Your task to perform on an android device: turn on the 12-hour format for clock Image 0: 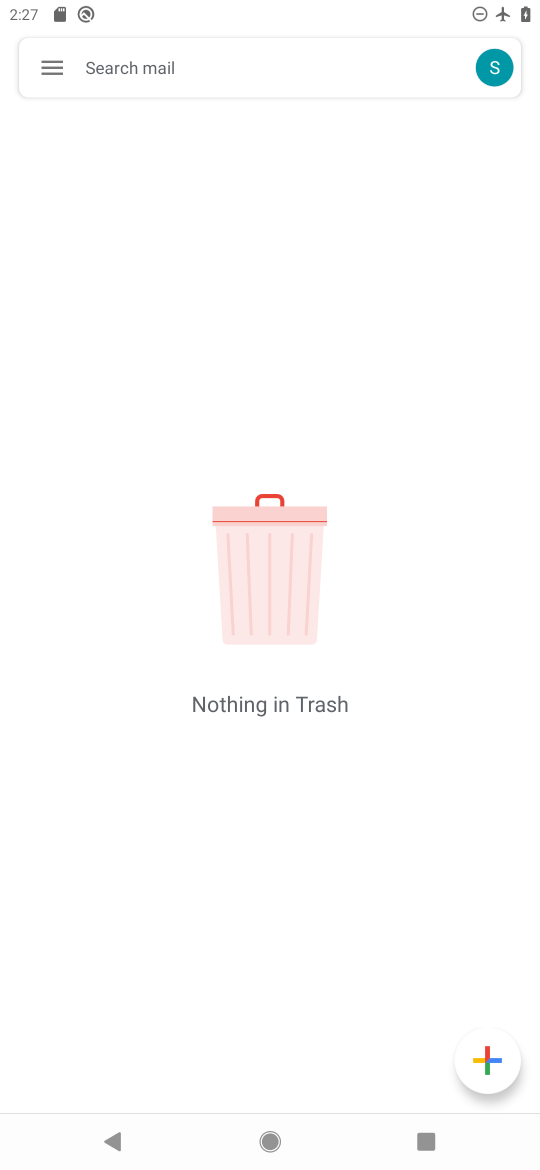
Step 0: press home button
Your task to perform on an android device: turn on the 12-hour format for clock Image 1: 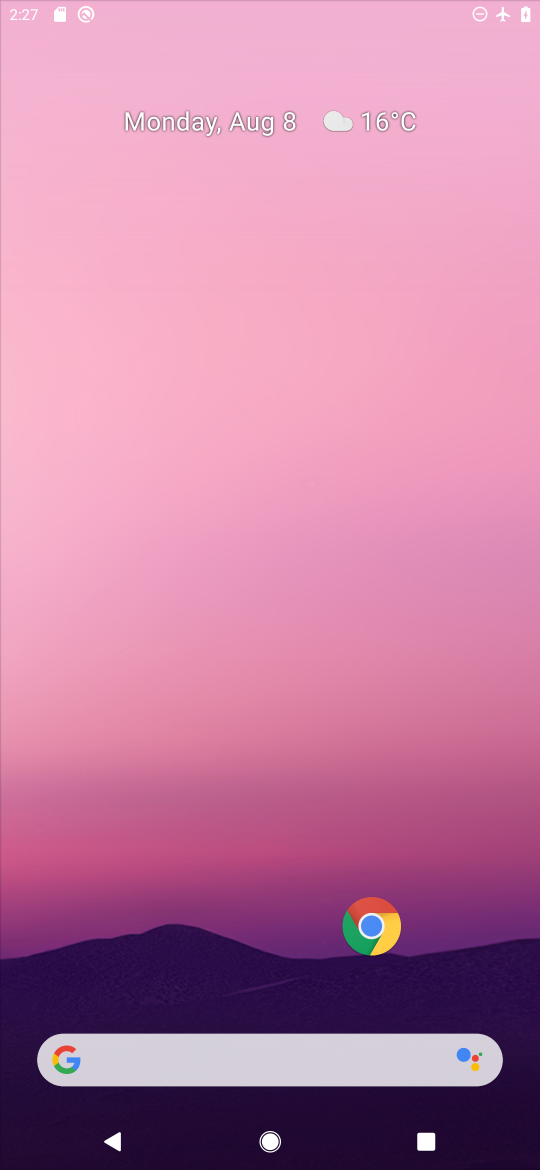
Step 1: drag from (181, 1060) to (312, 73)
Your task to perform on an android device: turn on the 12-hour format for clock Image 2: 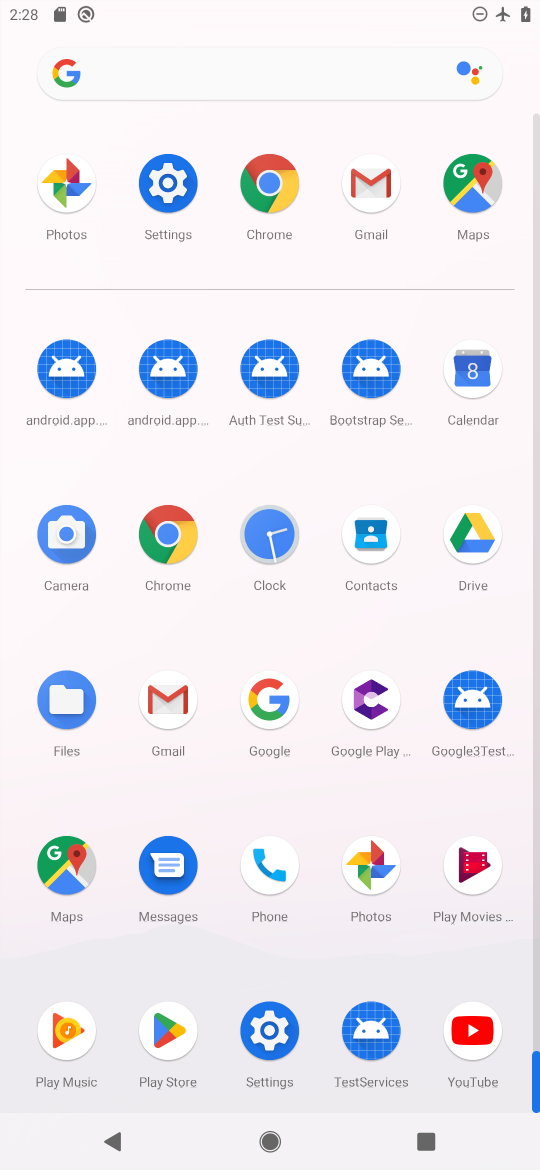
Step 2: click (254, 535)
Your task to perform on an android device: turn on the 12-hour format for clock Image 3: 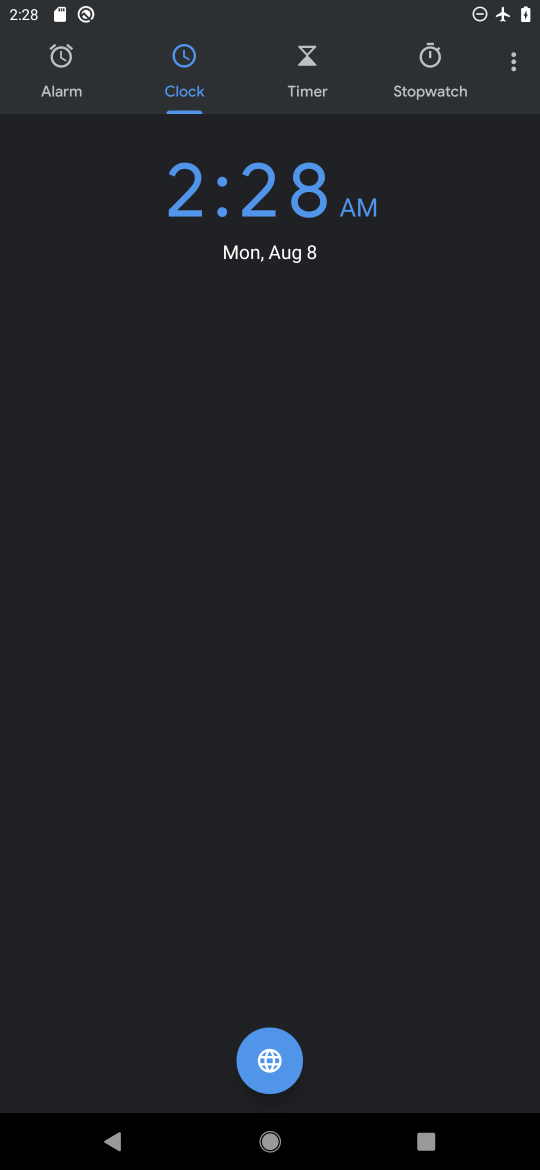
Step 3: click (505, 69)
Your task to perform on an android device: turn on the 12-hour format for clock Image 4: 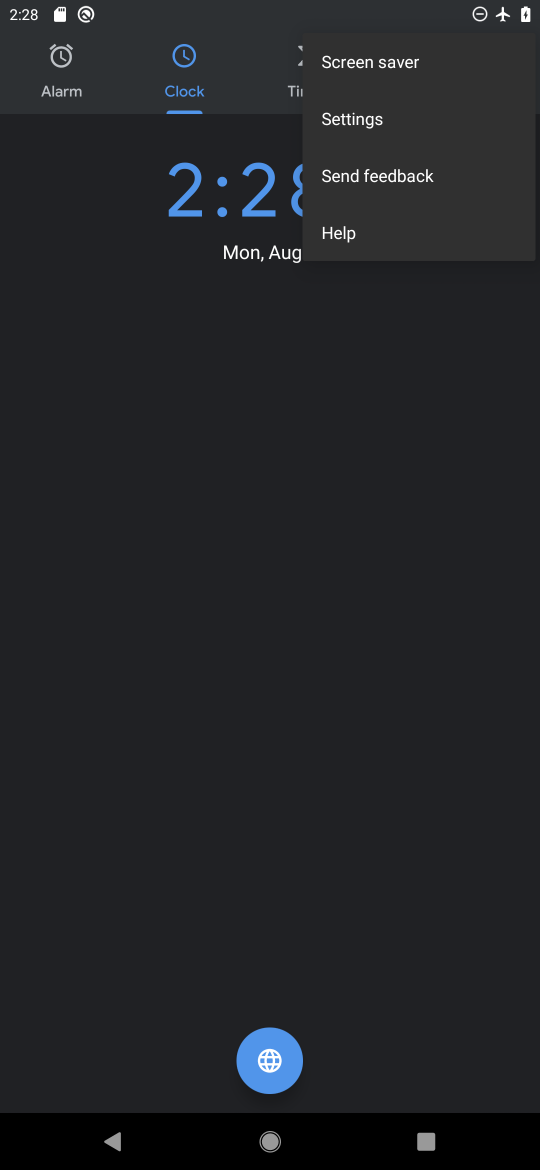
Step 4: click (392, 129)
Your task to perform on an android device: turn on the 12-hour format for clock Image 5: 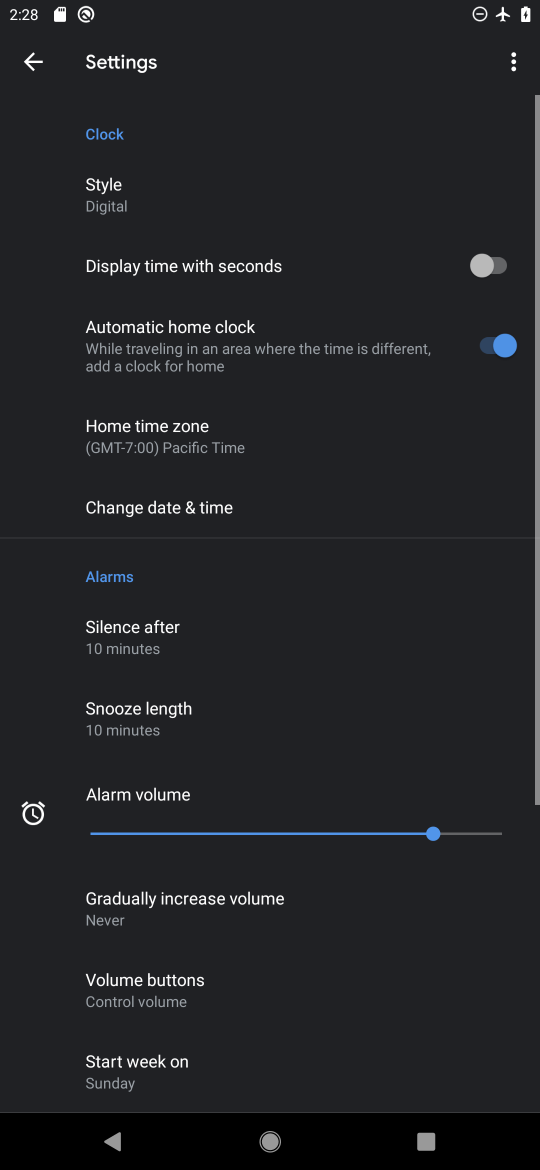
Step 5: click (177, 498)
Your task to perform on an android device: turn on the 12-hour format for clock Image 6: 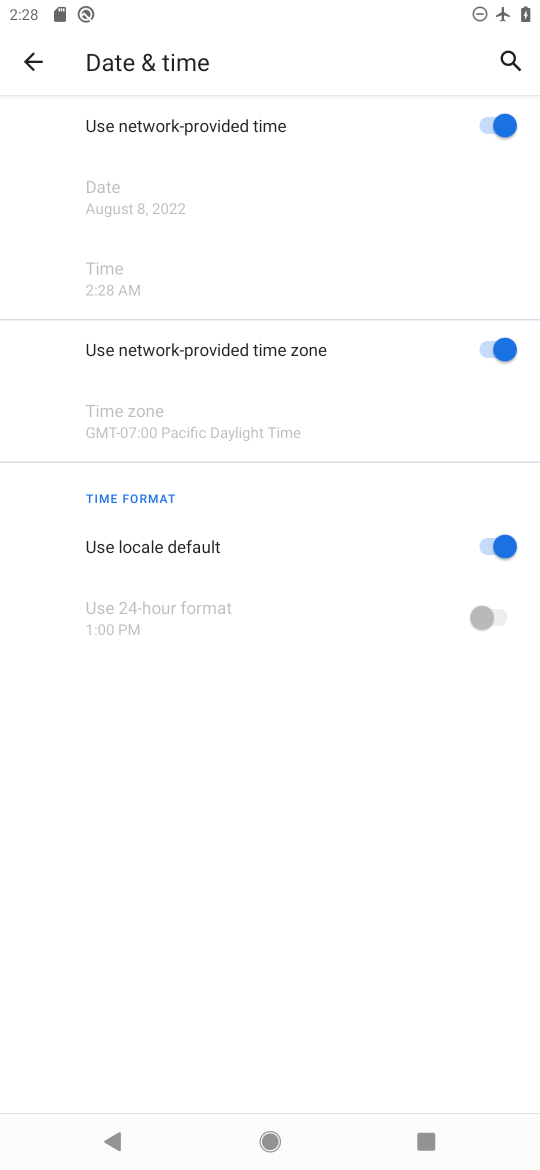
Step 6: click (514, 546)
Your task to perform on an android device: turn on the 12-hour format for clock Image 7: 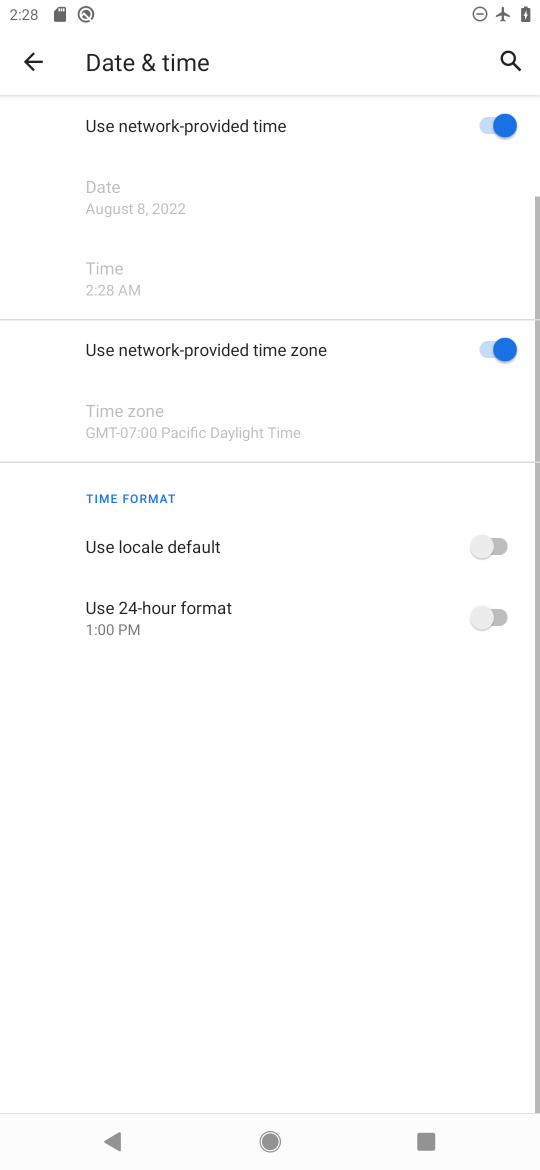
Step 7: click (477, 620)
Your task to perform on an android device: turn on the 12-hour format for clock Image 8: 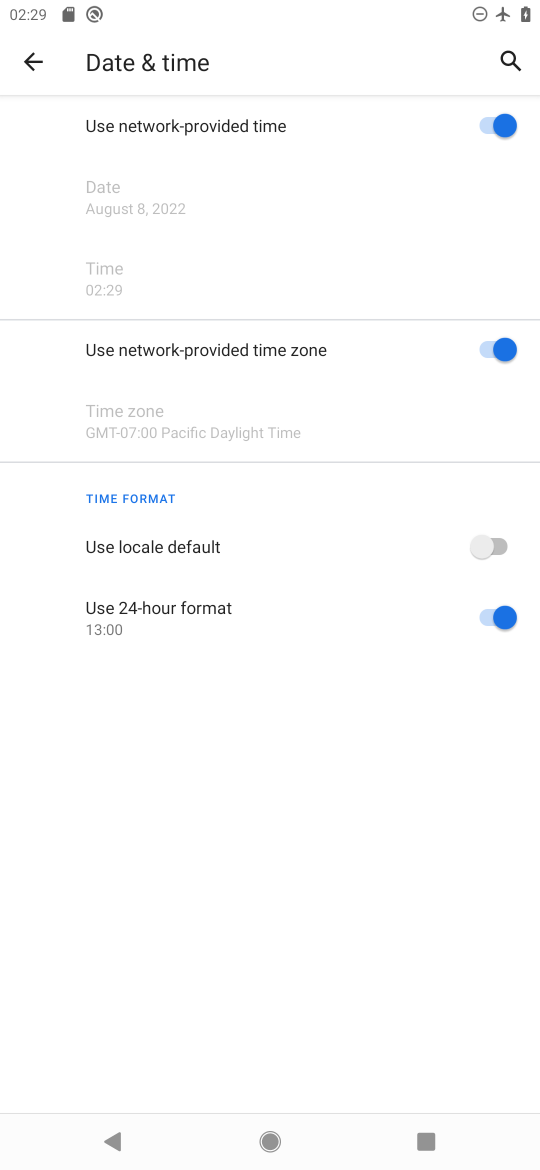
Step 8: task complete